Your task to perform on an android device: show emergency info Image 0: 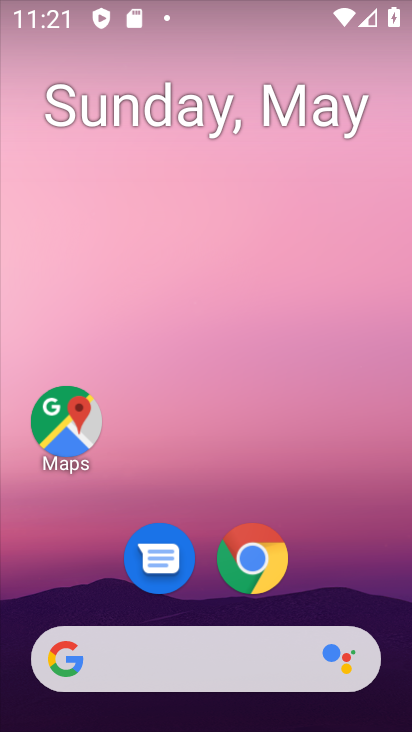
Step 0: drag from (372, 577) to (380, 140)
Your task to perform on an android device: show emergency info Image 1: 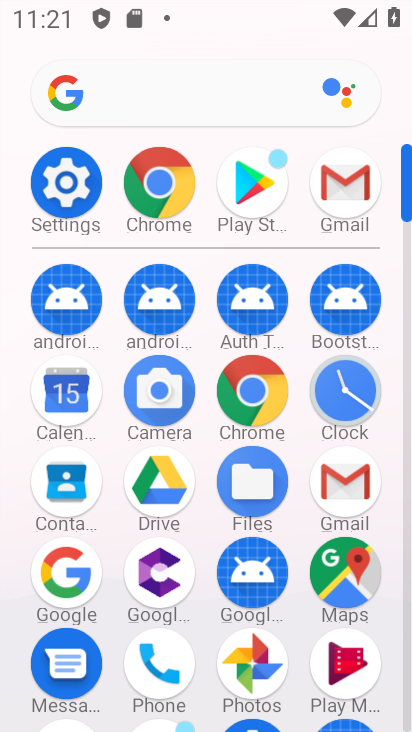
Step 1: click (55, 182)
Your task to perform on an android device: show emergency info Image 2: 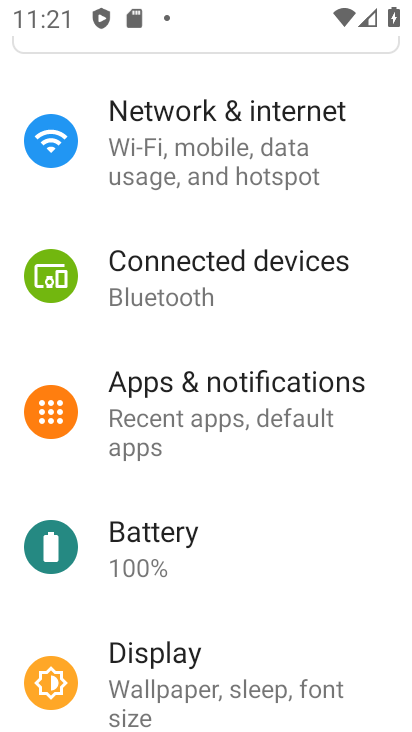
Step 2: drag from (349, 587) to (359, 493)
Your task to perform on an android device: show emergency info Image 3: 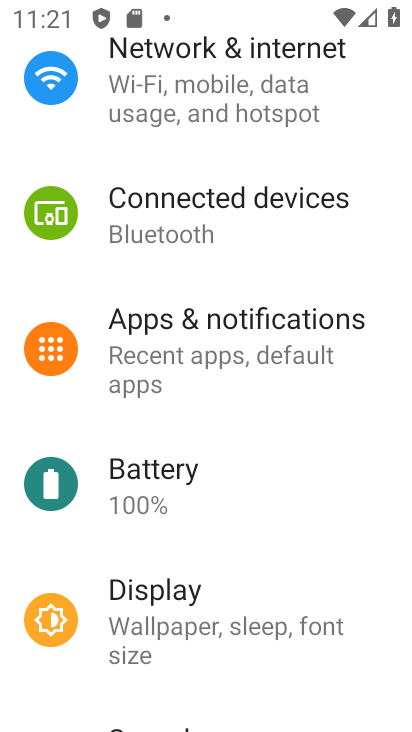
Step 3: drag from (350, 671) to (331, 530)
Your task to perform on an android device: show emergency info Image 4: 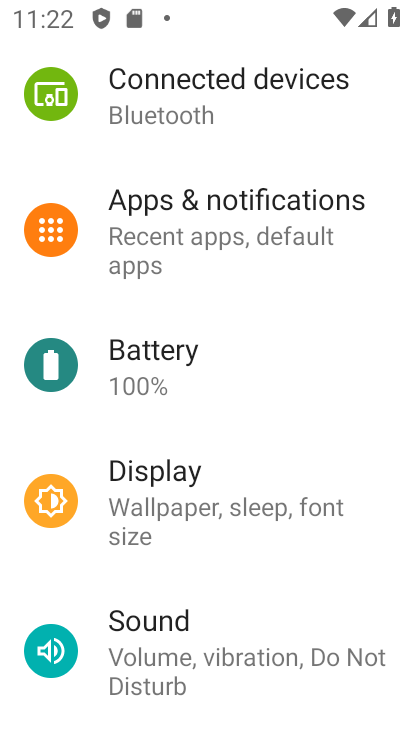
Step 4: drag from (350, 696) to (355, 530)
Your task to perform on an android device: show emergency info Image 5: 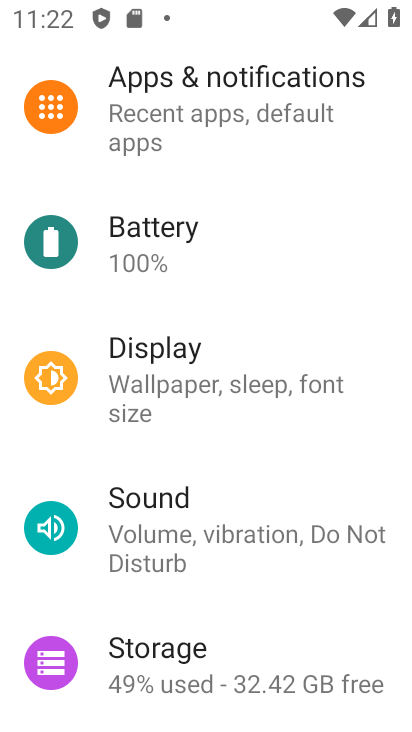
Step 5: drag from (350, 626) to (358, 455)
Your task to perform on an android device: show emergency info Image 6: 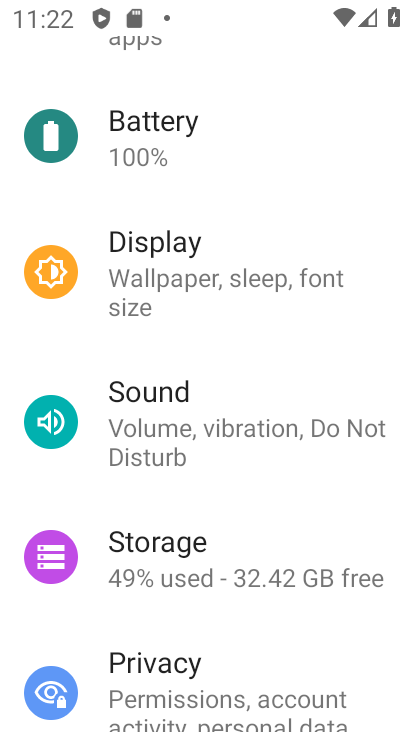
Step 6: drag from (348, 652) to (357, 499)
Your task to perform on an android device: show emergency info Image 7: 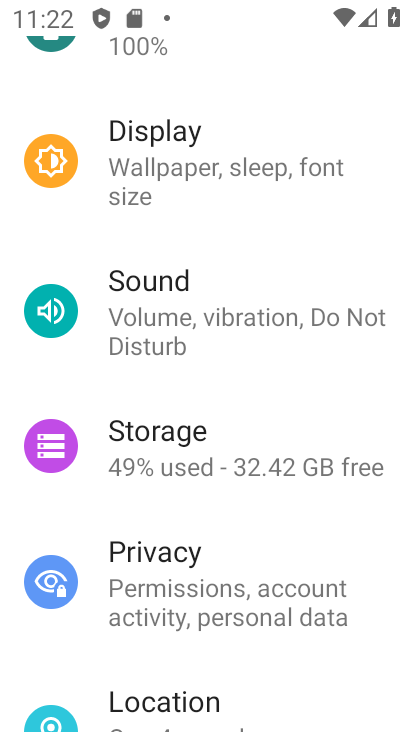
Step 7: drag from (340, 693) to (350, 540)
Your task to perform on an android device: show emergency info Image 8: 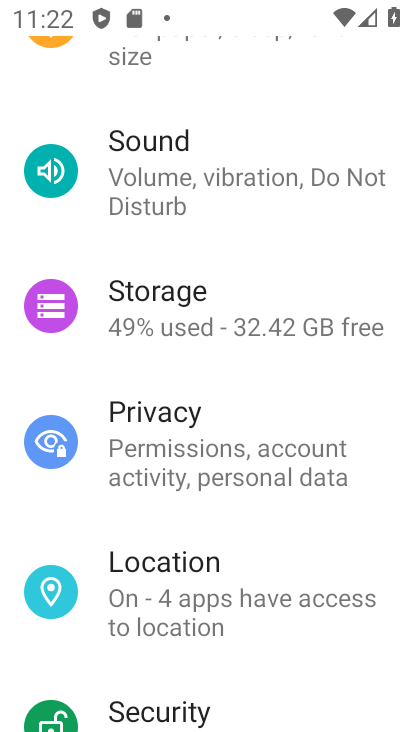
Step 8: drag from (330, 705) to (357, 524)
Your task to perform on an android device: show emergency info Image 9: 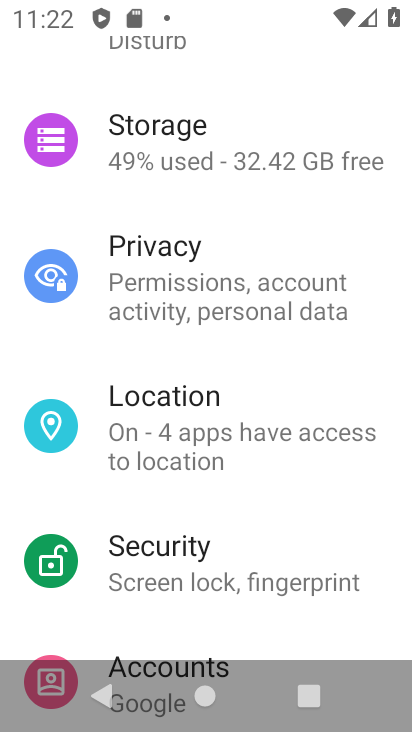
Step 9: drag from (360, 629) to (367, 453)
Your task to perform on an android device: show emergency info Image 10: 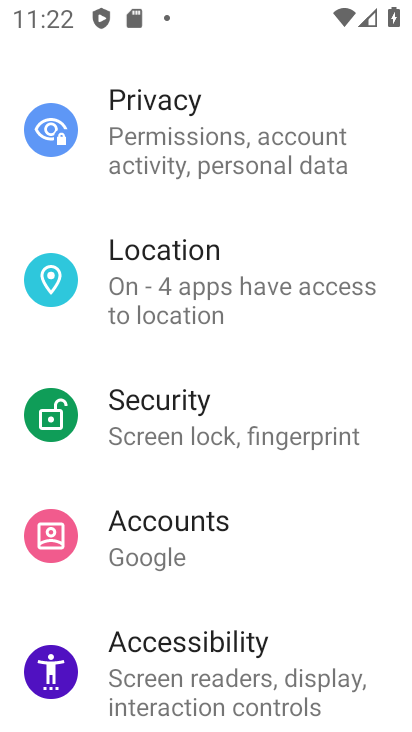
Step 10: drag from (359, 633) to (365, 483)
Your task to perform on an android device: show emergency info Image 11: 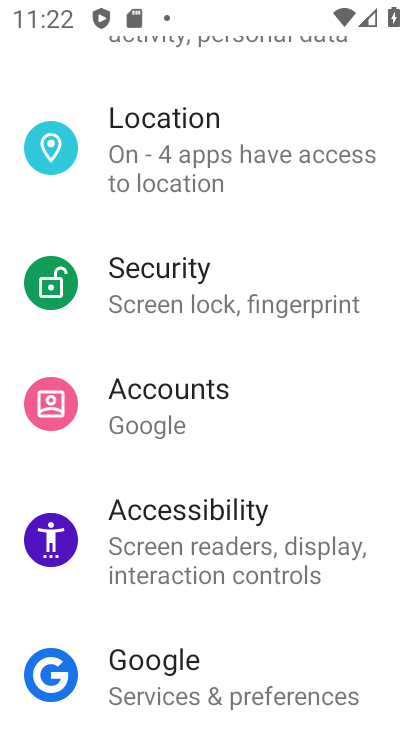
Step 11: drag from (338, 650) to (356, 482)
Your task to perform on an android device: show emergency info Image 12: 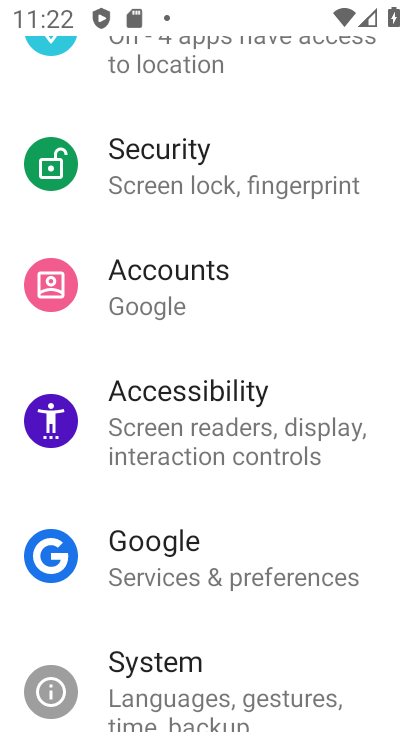
Step 12: drag from (354, 665) to (354, 488)
Your task to perform on an android device: show emergency info Image 13: 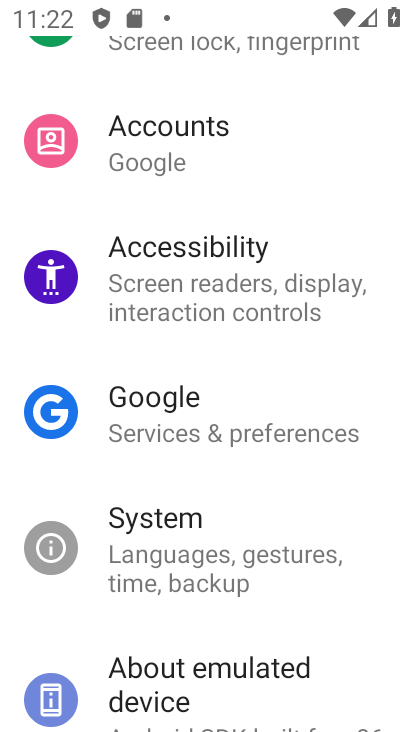
Step 13: drag from (349, 662) to (353, 467)
Your task to perform on an android device: show emergency info Image 14: 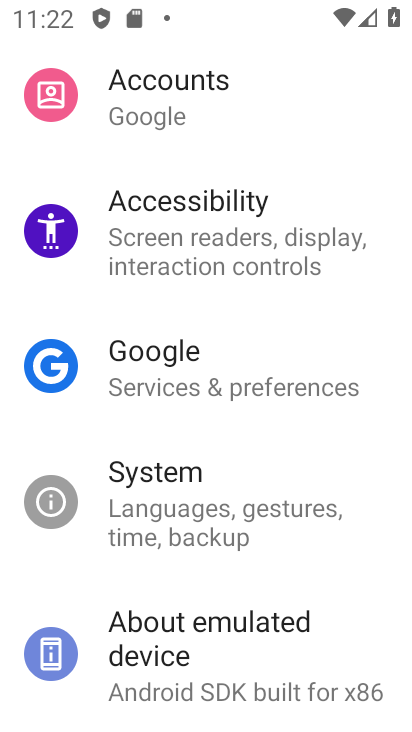
Step 14: click (251, 666)
Your task to perform on an android device: show emergency info Image 15: 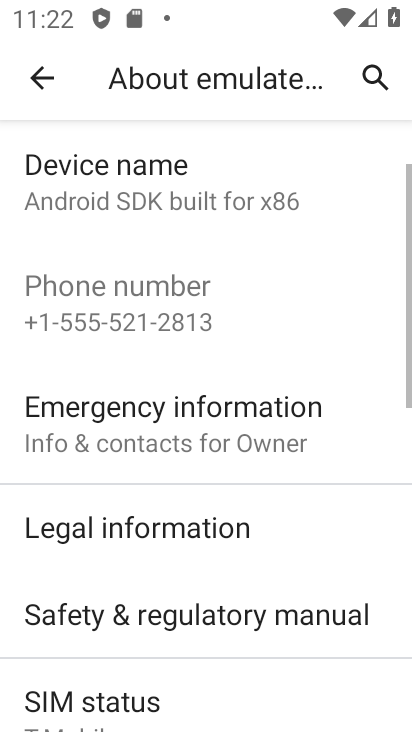
Step 15: click (244, 427)
Your task to perform on an android device: show emergency info Image 16: 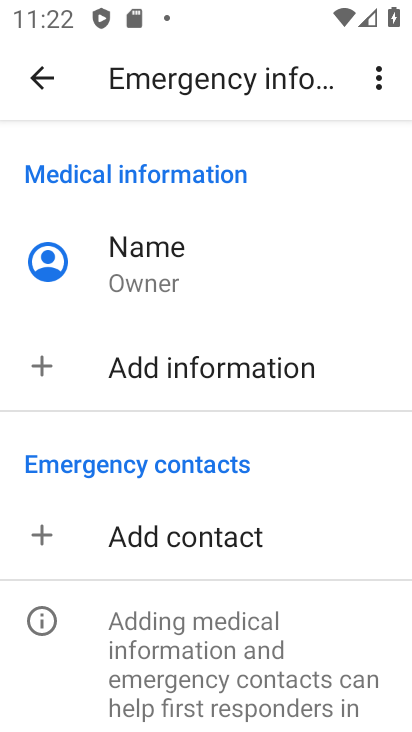
Step 16: task complete